Your task to perform on an android device: turn off location history Image 0: 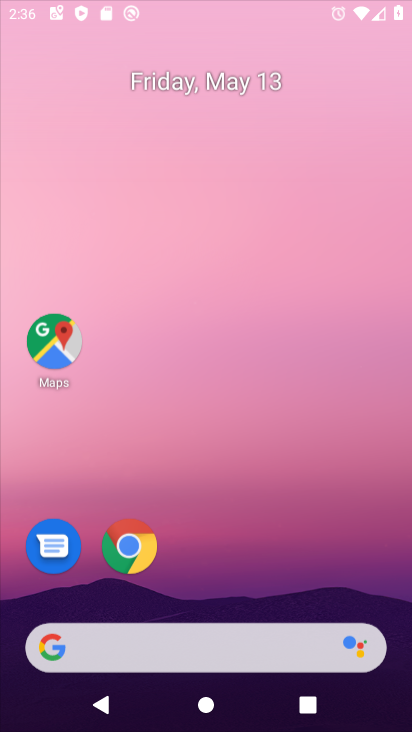
Step 0: press home button
Your task to perform on an android device: turn off location history Image 1: 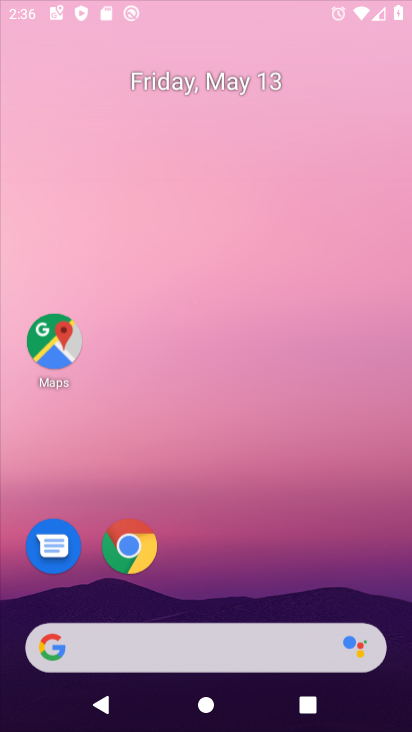
Step 1: click (243, 436)
Your task to perform on an android device: turn off location history Image 2: 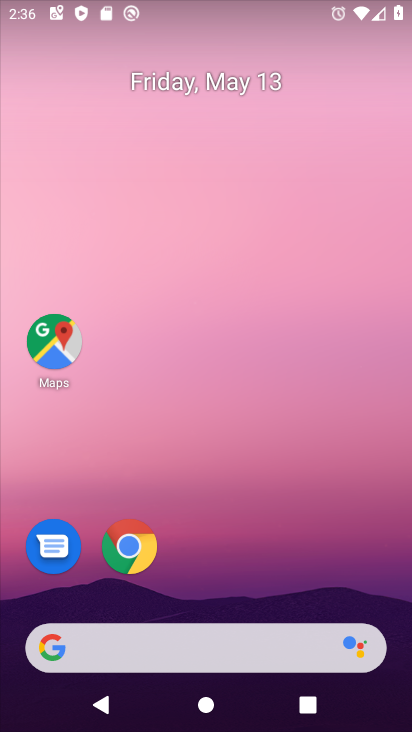
Step 2: drag from (324, 560) to (281, 122)
Your task to perform on an android device: turn off location history Image 3: 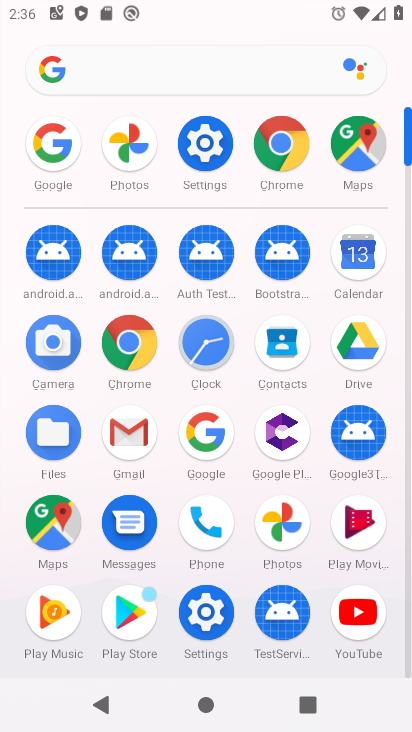
Step 3: click (219, 153)
Your task to perform on an android device: turn off location history Image 4: 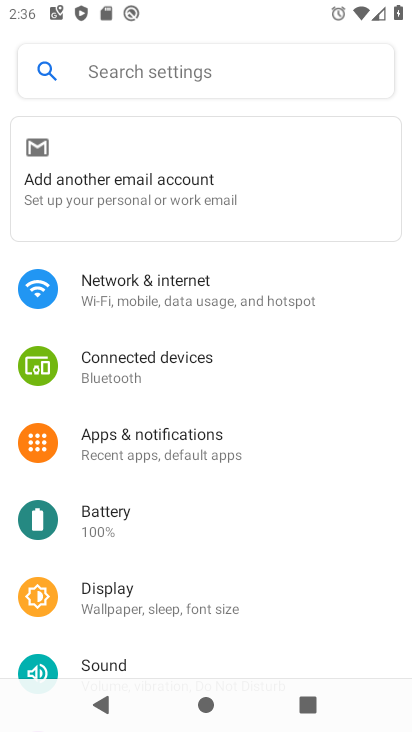
Step 4: drag from (221, 635) to (240, 221)
Your task to perform on an android device: turn off location history Image 5: 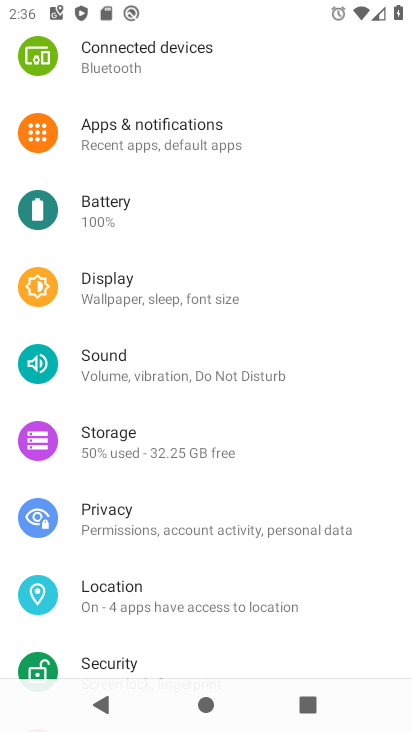
Step 5: click (136, 589)
Your task to perform on an android device: turn off location history Image 6: 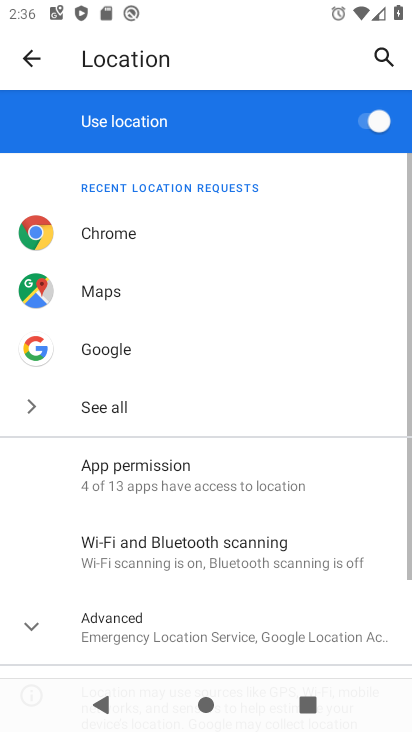
Step 6: drag from (206, 593) to (253, 298)
Your task to perform on an android device: turn off location history Image 7: 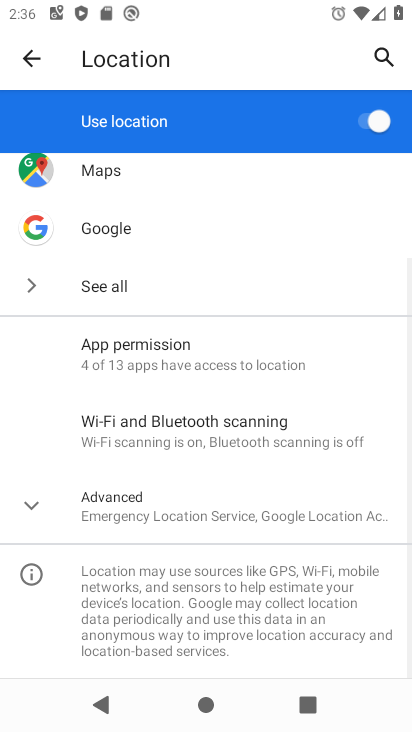
Step 7: click (180, 493)
Your task to perform on an android device: turn off location history Image 8: 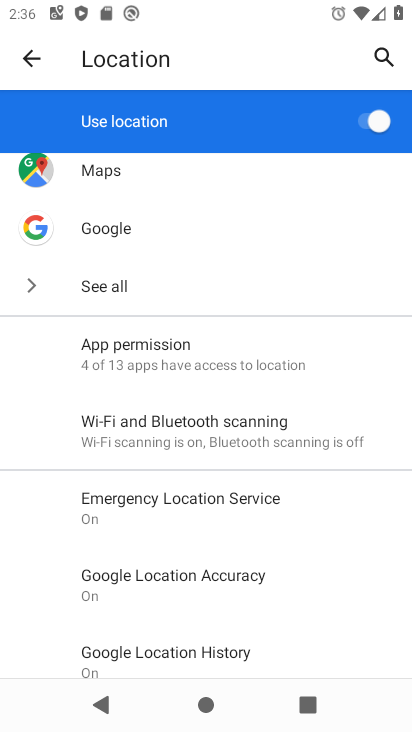
Step 8: click (212, 647)
Your task to perform on an android device: turn off location history Image 9: 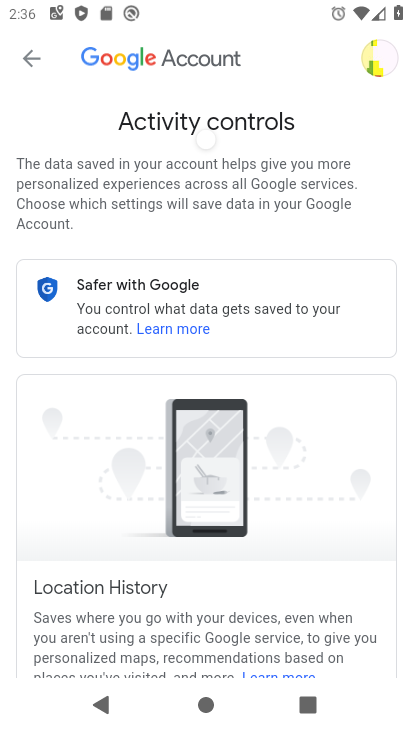
Step 9: task complete